Your task to perform on an android device: toggle improve location accuracy Image 0: 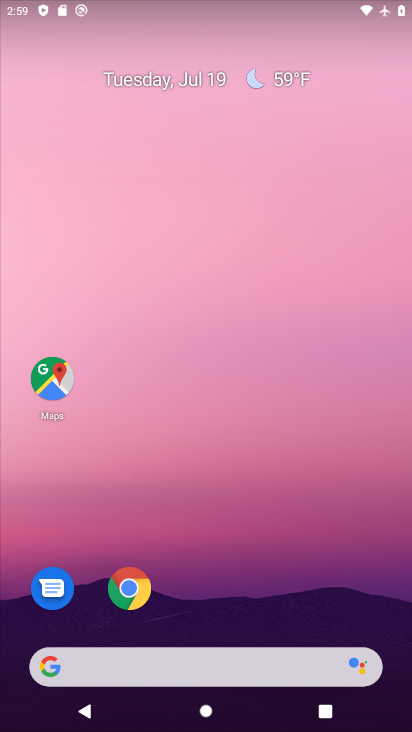
Step 0: press home button
Your task to perform on an android device: toggle improve location accuracy Image 1: 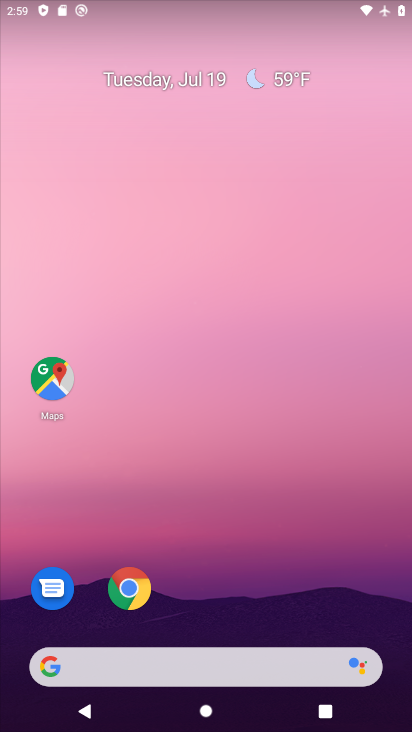
Step 1: drag from (170, 630) to (216, 133)
Your task to perform on an android device: toggle improve location accuracy Image 2: 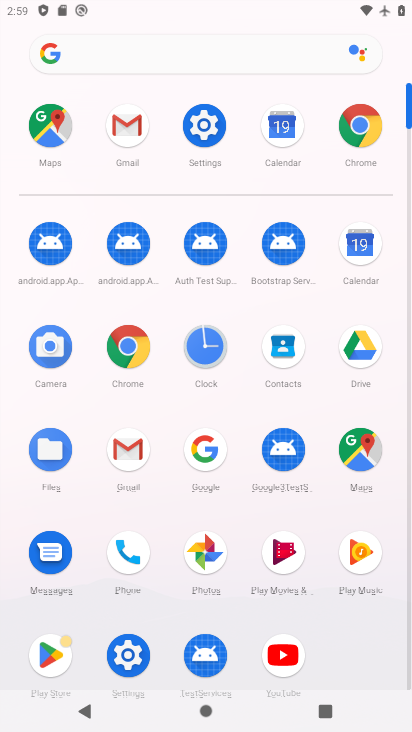
Step 2: click (203, 138)
Your task to perform on an android device: toggle improve location accuracy Image 3: 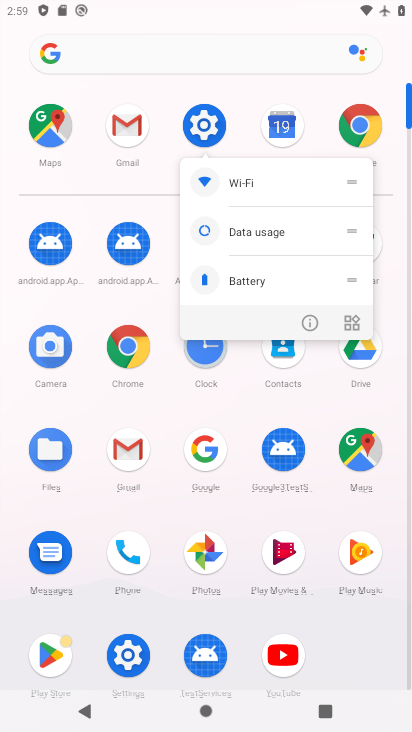
Step 3: click (203, 138)
Your task to perform on an android device: toggle improve location accuracy Image 4: 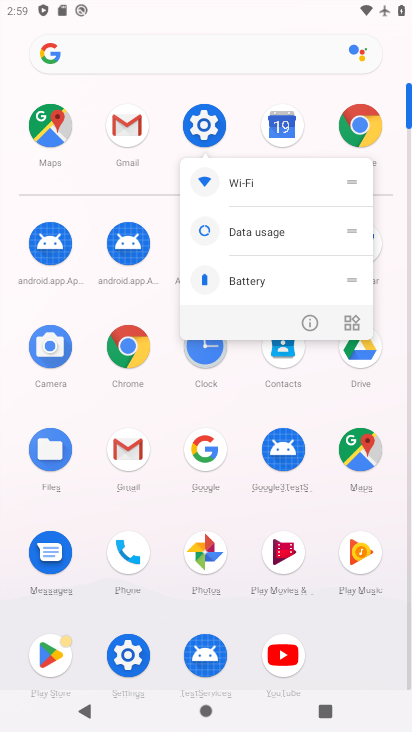
Step 4: click (203, 138)
Your task to perform on an android device: toggle improve location accuracy Image 5: 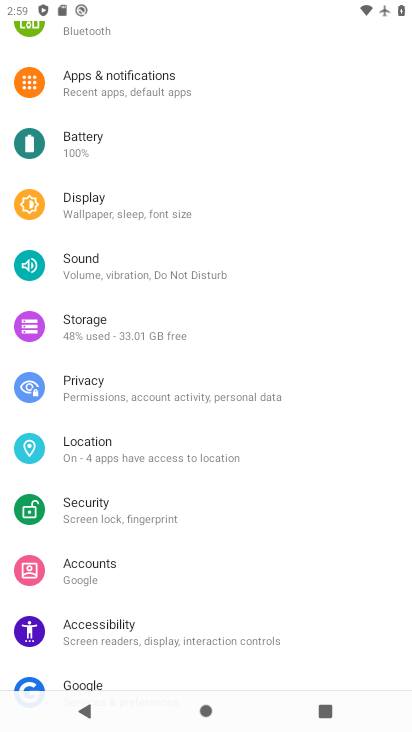
Step 5: click (107, 458)
Your task to perform on an android device: toggle improve location accuracy Image 6: 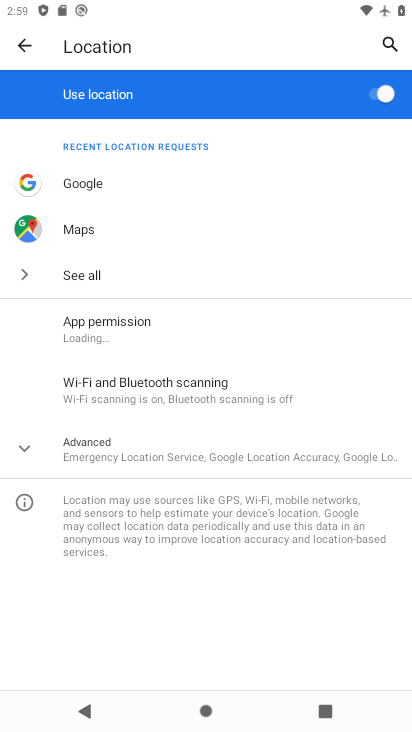
Step 6: click (88, 457)
Your task to perform on an android device: toggle improve location accuracy Image 7: 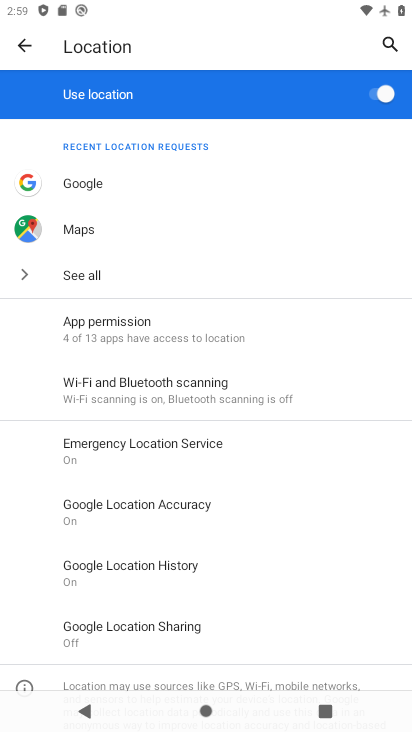
Step 7: click (149, 507)
Your task to perform on an android device: toggle improve location accuracy Image 8: 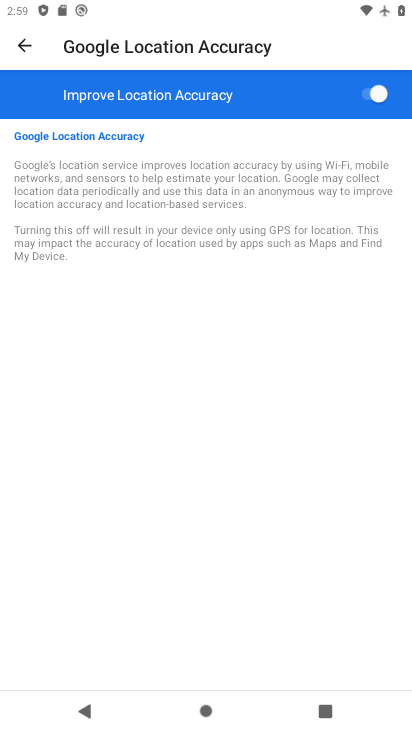
Step 8: click (377, 101)
Your task to perform on an android device: toggle improve location accuracy Image 9: 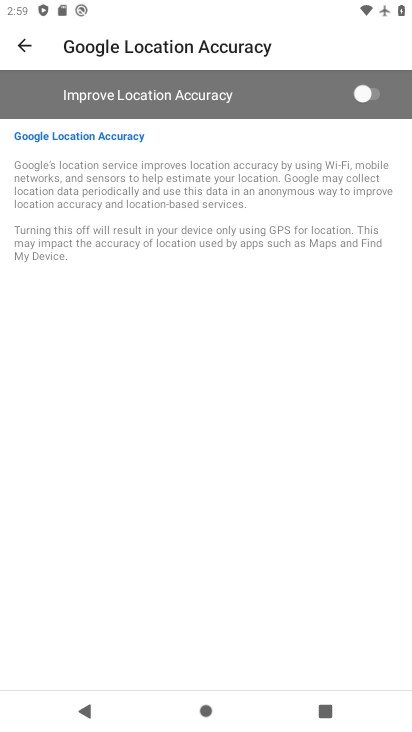
Step 9: task complete